Your task to perform on an android device: change the upload size in google photos Image 0: 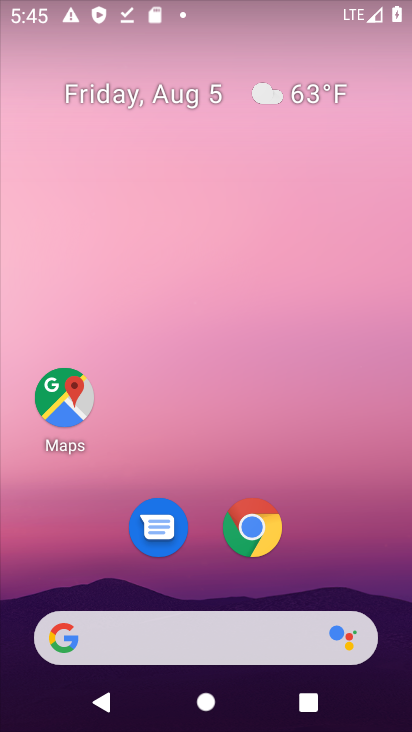
Step 0: drag from (225, 574) to (197, 147)
Your task to perform on an android device: change the upload size in google photos Image 1: 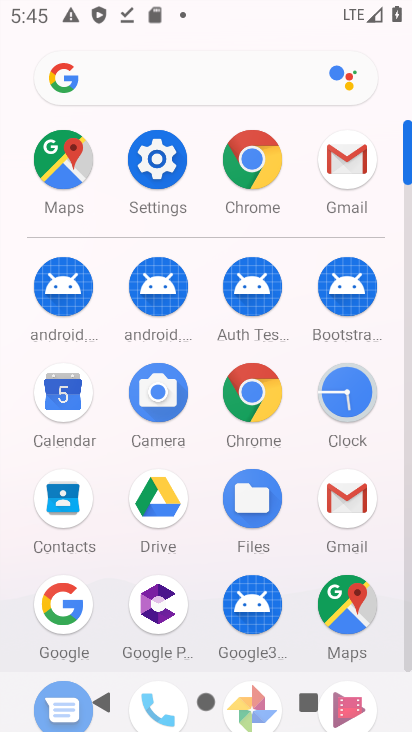
Step 1: drag from (212, 631) to (235, 326)
Your task to perform on an android device: change the upload size in google photos Image 2: 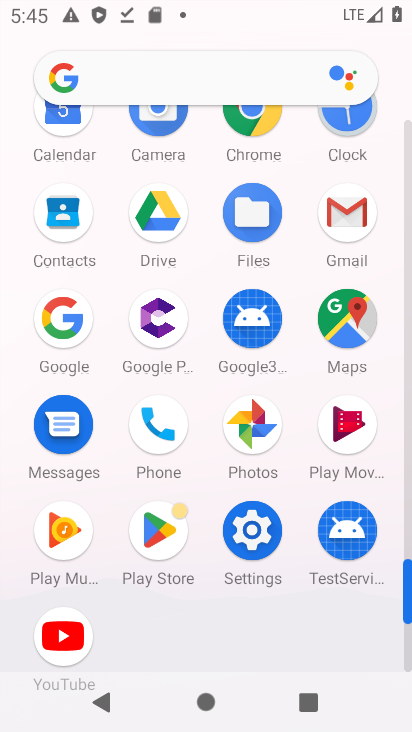
Step 2: click (248, 431)
Your task to perform on an android device: change the upload size in google photos Image 3: 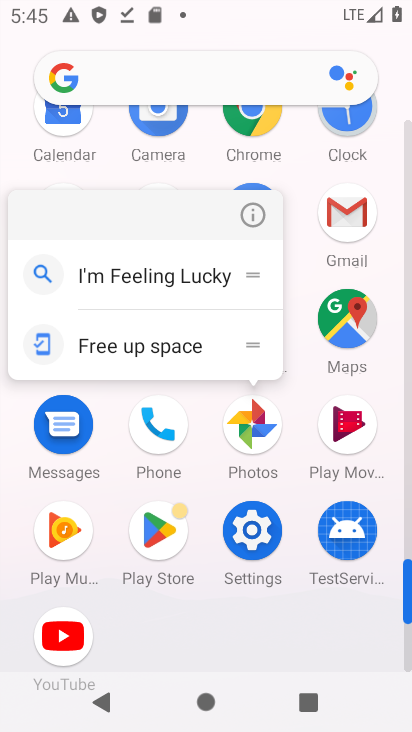
Step 3: click (257, 214)
Your task to perform on an android device: change the upload size in google photos Image 4: 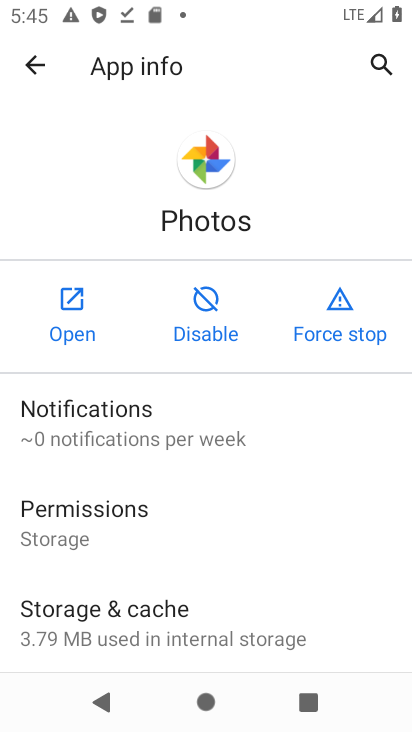
Step 4: click (81, 342)
Your task to perform on an android device: change the upload size in google photos Image 5: 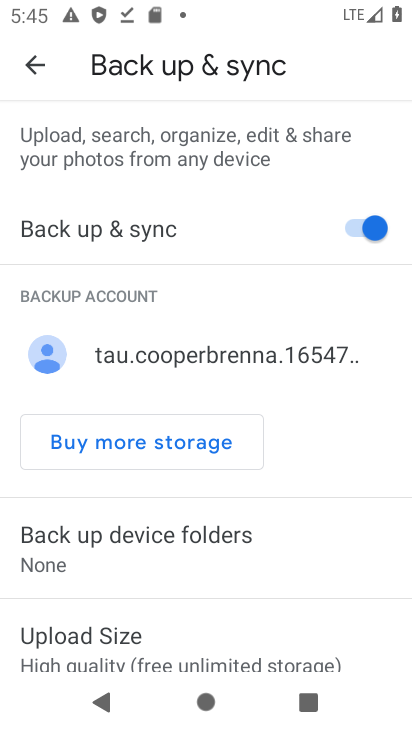
Step 5: drag from (219, 585) to (242, 300)
Your task to perform on an android device: change the upload size in google photos Image 6: 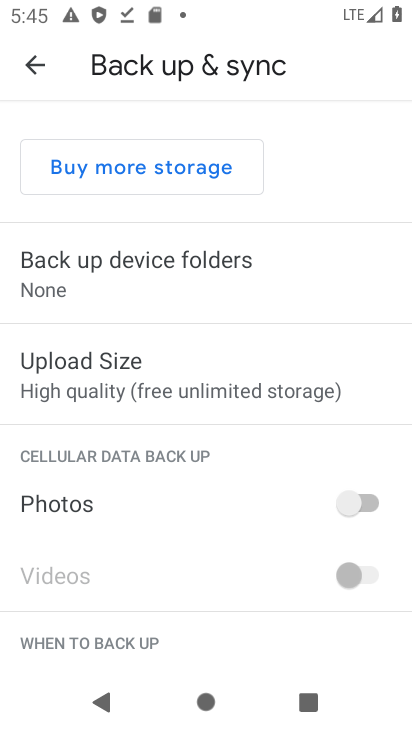
Step 6: click (114, 393)
Your task to perform on an android device: change the upload size in google photos Image 7: 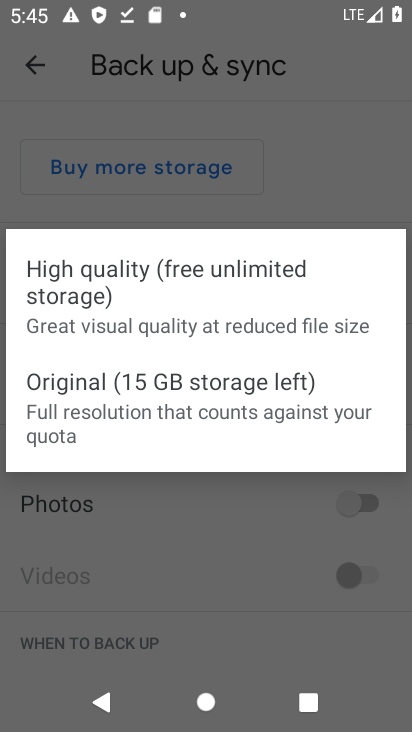
Step 7: click (141, 414)
Your task to perform on an android device: change the upload size in google photos Image 8: 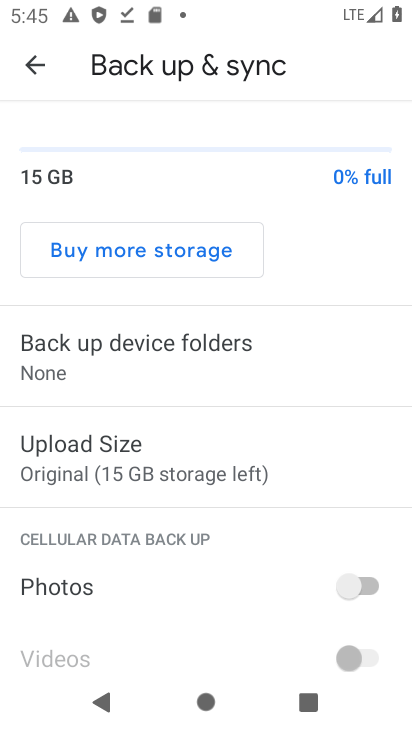
Step 8: task complete